Your task to perform on an android device: See recent photos Image 0: 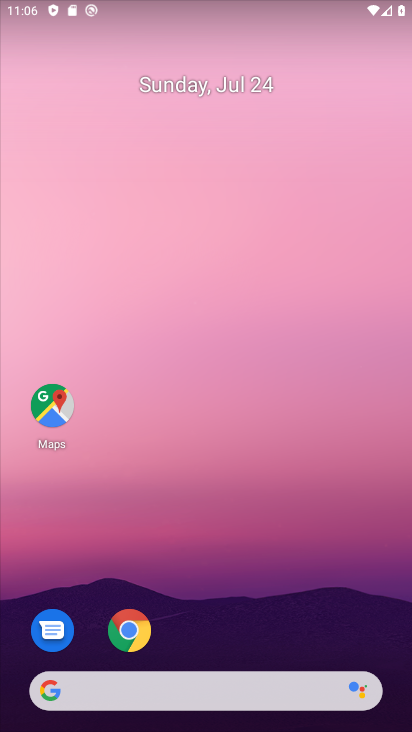
Step 0: drag from (198, 627) to (153, 80)
Your task to perform on an android device: See recent photos Image 1: 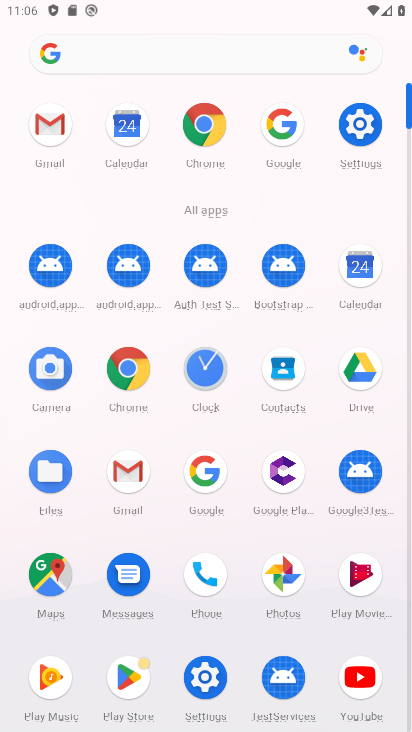
Step 1: click (291, 582)
Your task to perform on an android device: See recent photos Image 2: 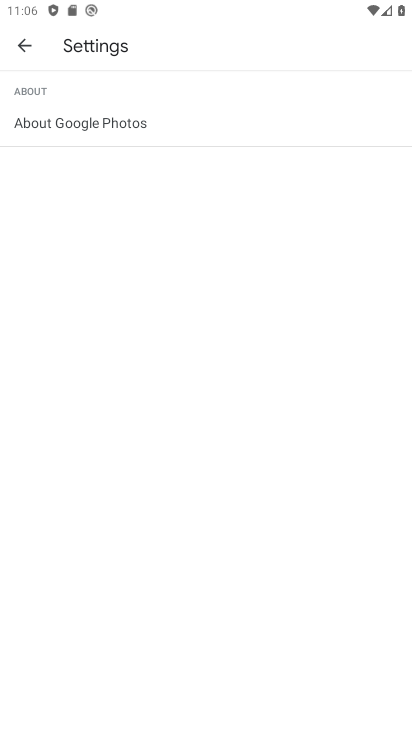
Step 2: click (25, 47)
Your task to perform on an android device: See recent photos Image 3: 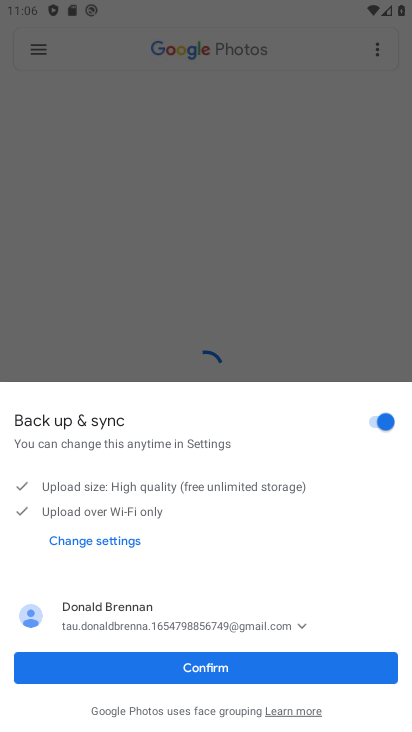
Step 3: click (208, 665)
Your task to perform on an android device: See recent photos Image 4: 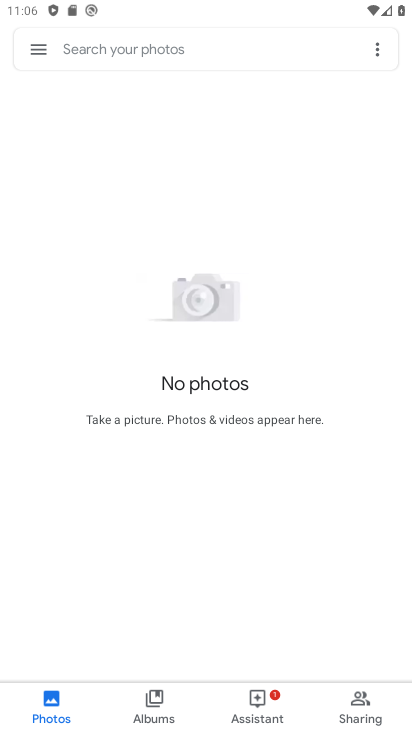
Step 4: task complete